Your task to perform on an android device: change the clock display to show seconds Image 0: 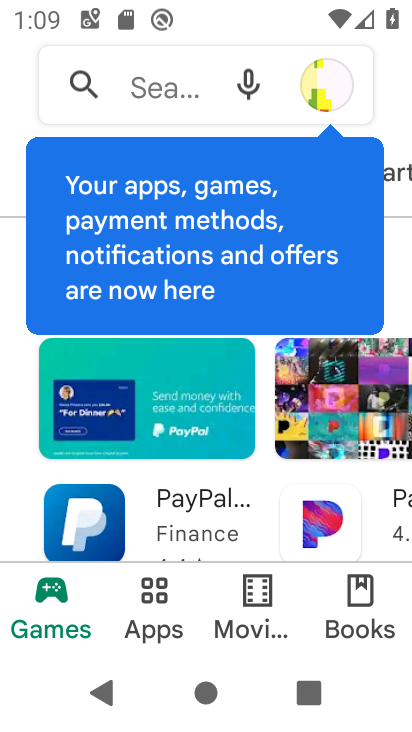
Step 0: press home button
Your task to perform on an android device: change the clock display to show seconds Image 1: 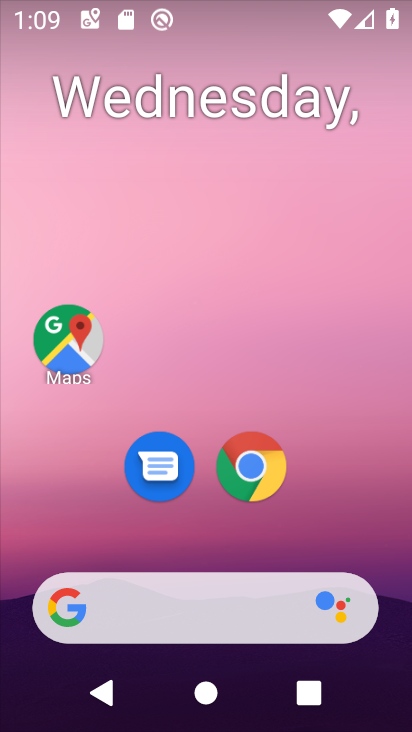
Step 1: drag from (184, 534) to (235, 63)
Your task to perform on an android device: change the clock display to show seconds Image 2: 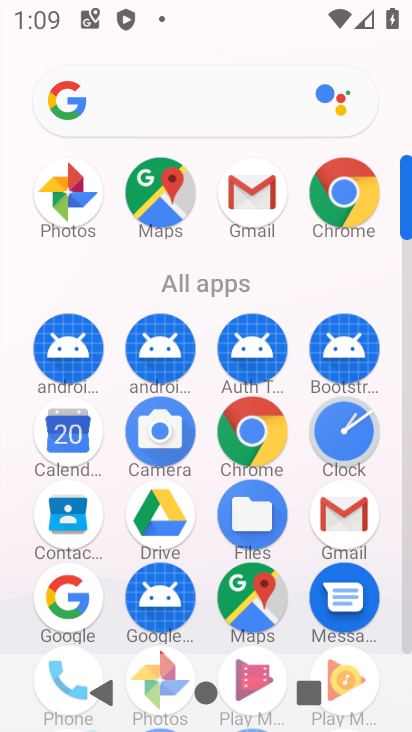
Step 2: click (361, 439)
Your task to perform on an android device: change the clock display to show seconds Image 3: 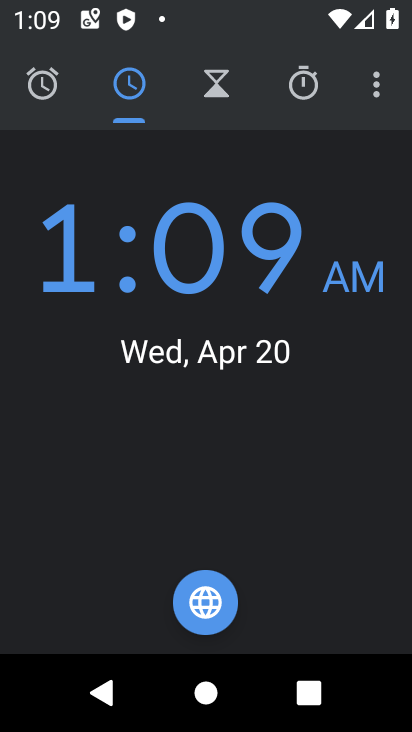
Step 3: click (365, 69)
Your task to perform on an android device: change the clock display to show seconds Image 4: 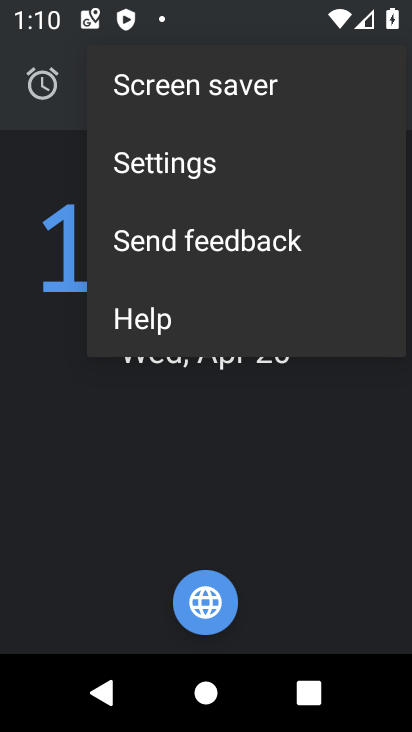
Step 4: click (219, 176)
Your task to perform on an android device: change the clock display to show seconds Image 5: 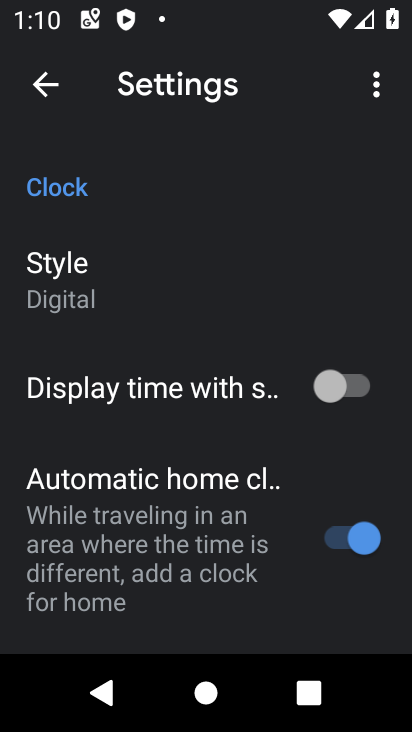
Step 5: click (356, 396)
Your task to perform on an android device: change the clock display to show seconds Image 6: 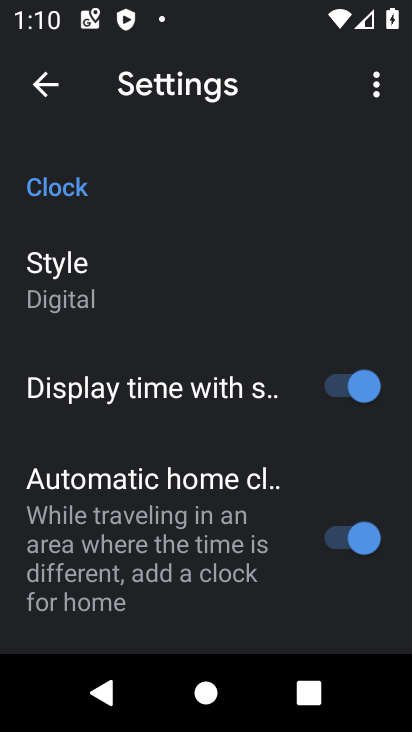
Step 6: task complete